Your task to perform on an android device: Open wifi settings Image 0: 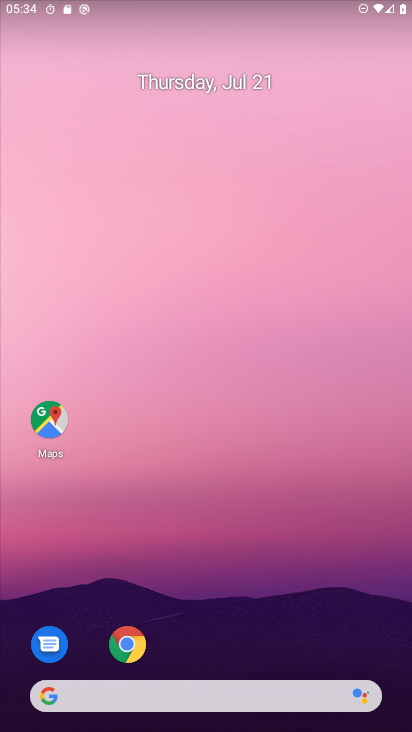
Step 0: drag from (193, 590) to (178, 151)
Your task to perform on an android device: Open wifi settings Image 1: 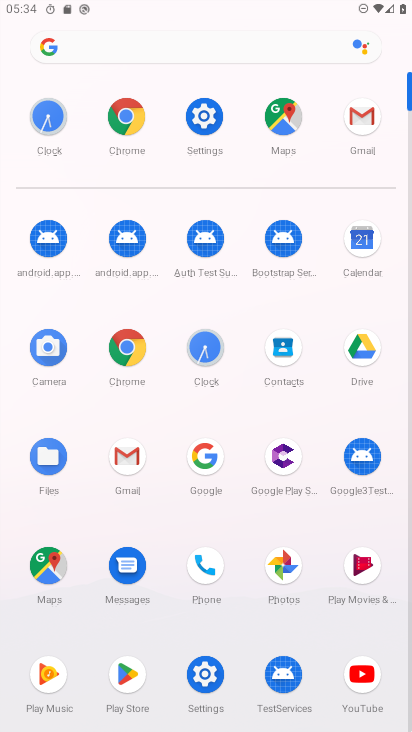
Step 1: click (194, 118)
Your task to perform on an android device: Open wifi settings Image 2: 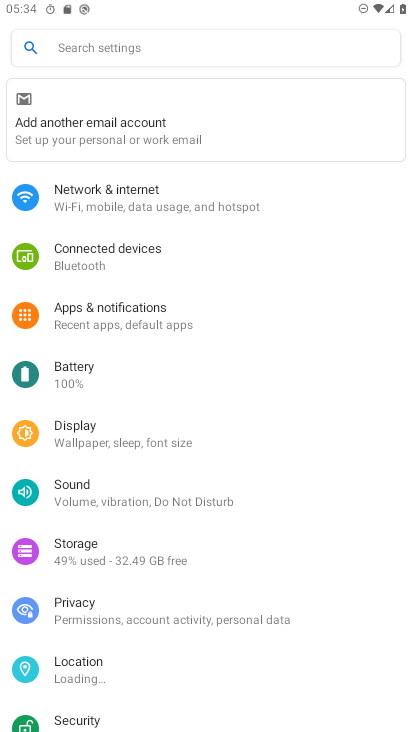
Step 2: click (147, 187)
Your task to perform on an android device: Open wifi settings Image 3: 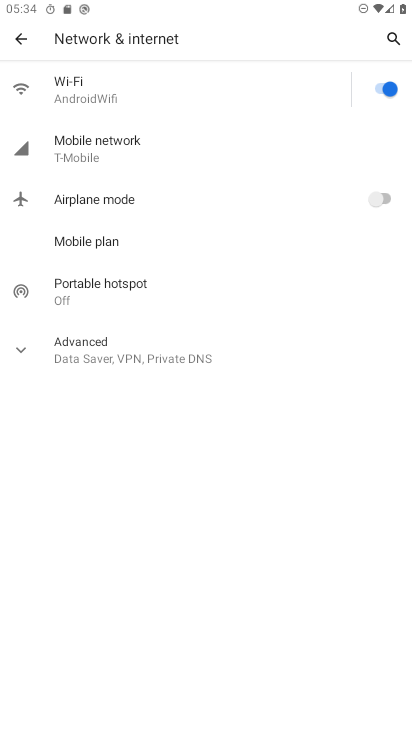
Step 3: click (136, 101)
Your task to perform on an android device: Open wifi settings Image 4: 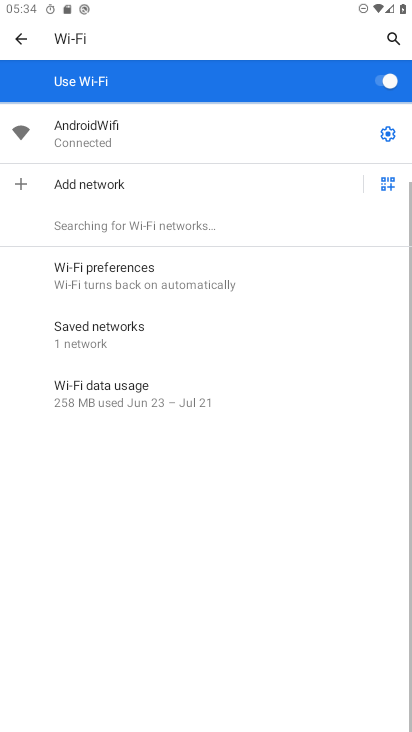
Step 4: task complete